Your task to perform on an android device: turn off sleep mode Image 0: 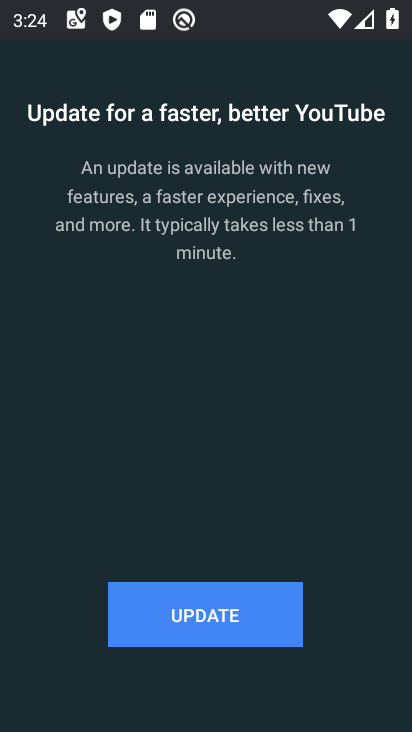
Step 0: press home button
Your task to perform on an android device: turn off sleep mode Image 1: 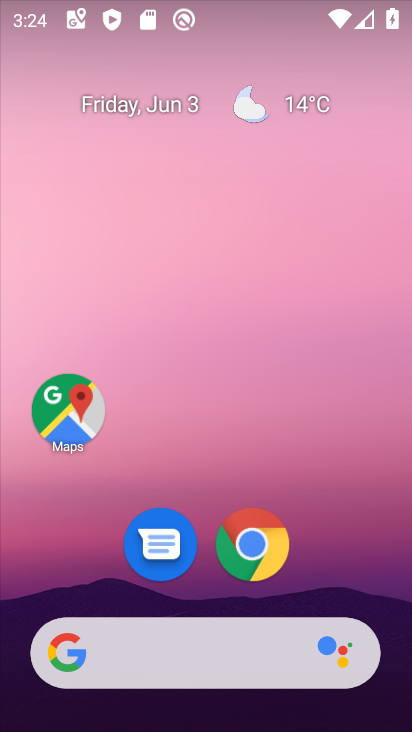
Step 1: drag from (395, 627) to (342, 74)
Your task to perform on an android device: turn off sleep mode Image 2: 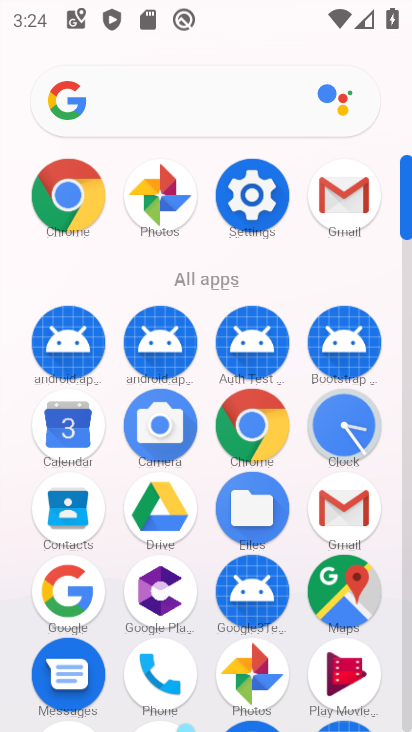
Step 2: click (401, 704)
Your task to perform on an android device: turn off sleep mode Image 3: 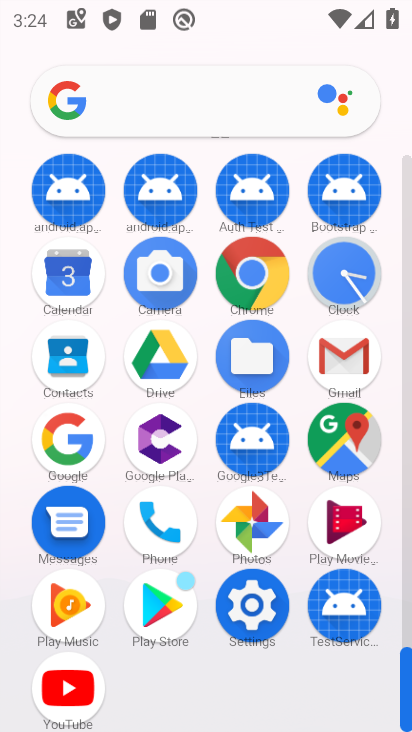
Step 3: click (252, 605)
Your task to perform on an android device: turn off sleep mode Image 4: 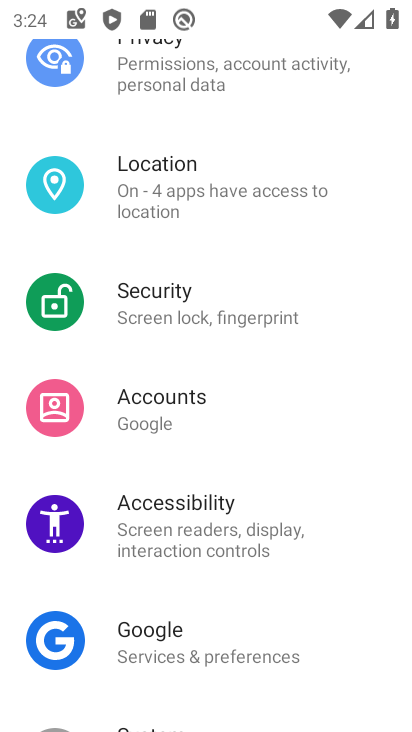
Step 4: drag from (372, 113) to (320, 460)
Your task to perform on an android device: turn off sleep mode Image 5: 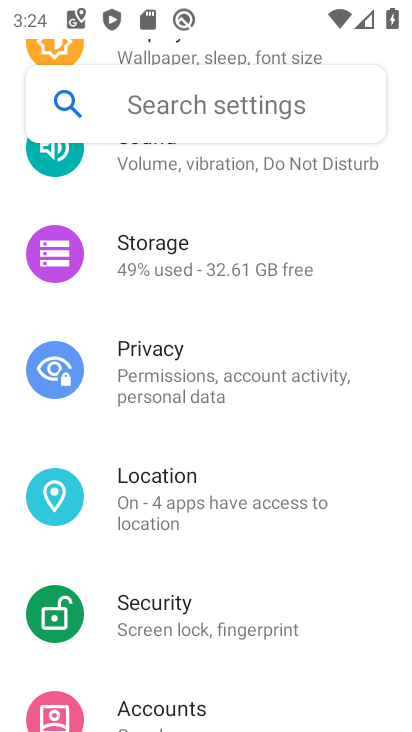
Step 5: drag from (369, 203) to (379, 576)
Your task to perform on an android device: turn off sleep mode Image 6: 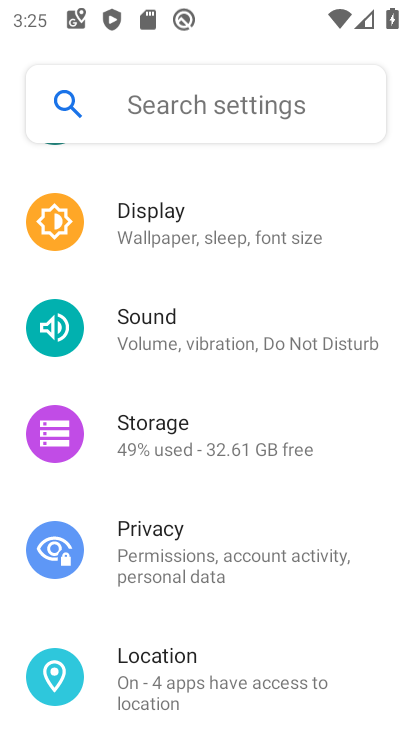
Step 6: click (135, 229)
Your task to perform on an android device: turn off sleep mode Image 7: 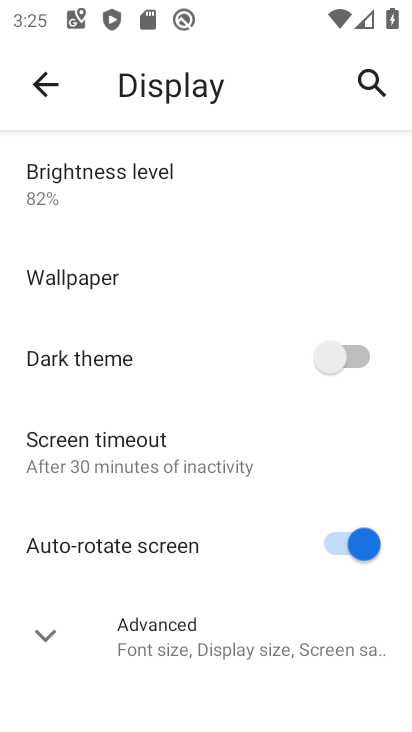
Step 7: click (45, 634)
Your task to perform on an android device: turn off sleep mode Image 8: 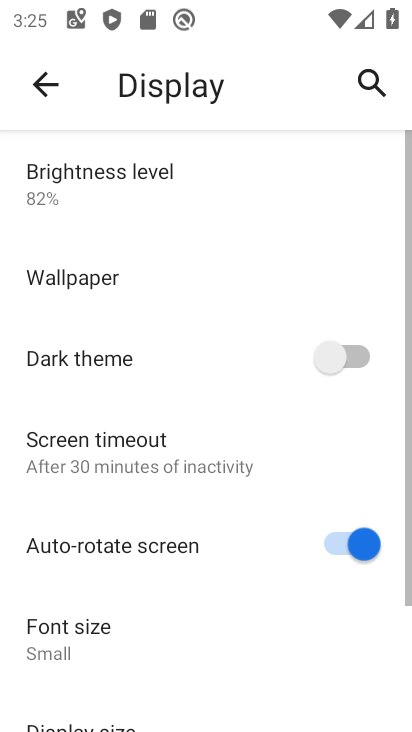
Step 8: task complete